Your task to perform on an android device: empty trash in the gmail app Image 0: 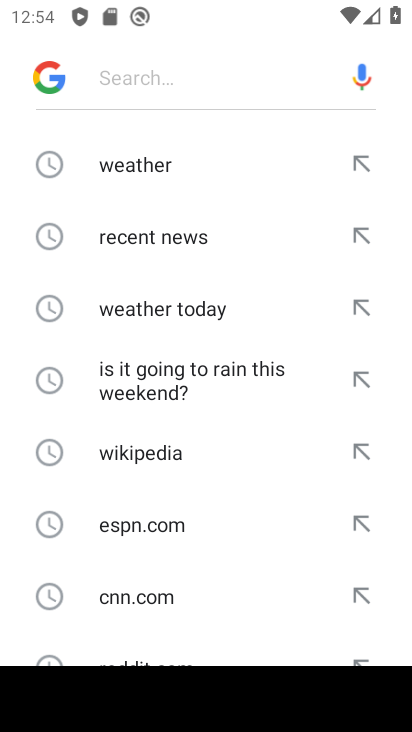
Step 0: press home button
Your task to perform on an android device: empty trash in the gmail app Image 1: 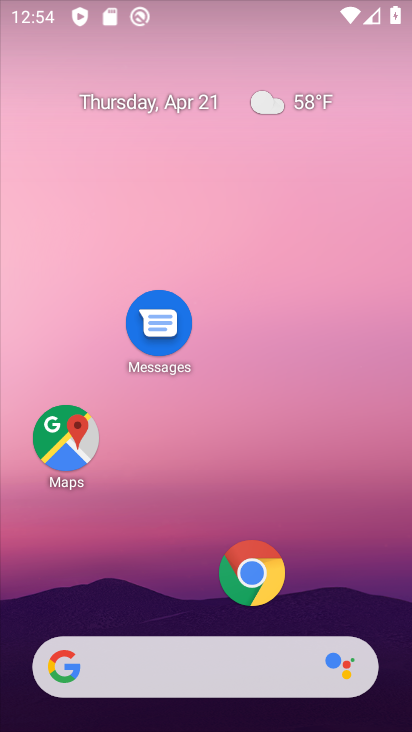
Step 1: drag from (161, 406) to (147, 82)
Your task to perform on an android device: empty trash in the gmail app Image 2: 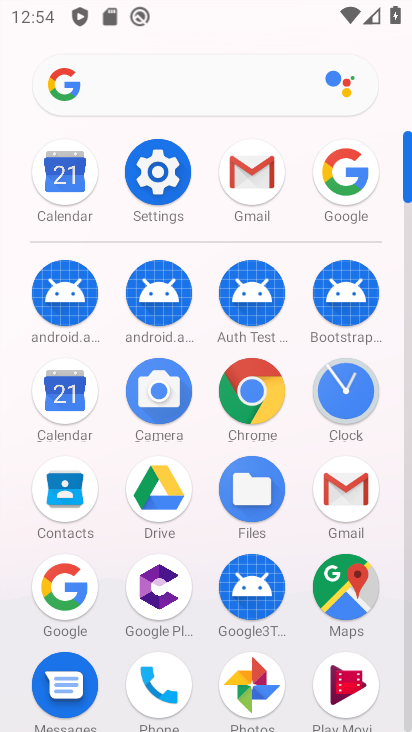
Step 2: click (263, 176)
Your task to perform on an android device: empty trash in the gmail app Image 3: 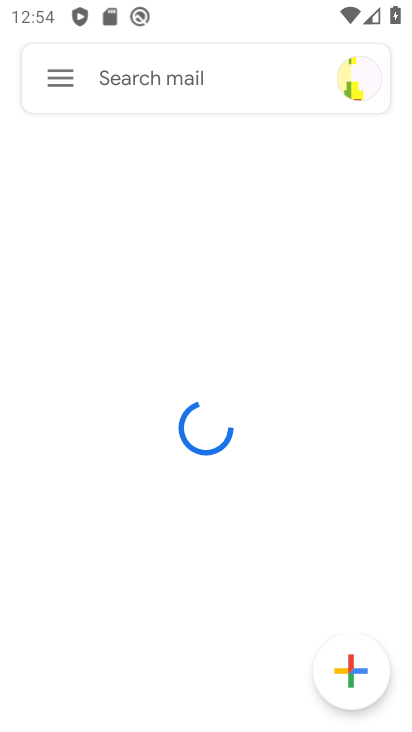
Step 3: click (36, 64)
Your task to perform on an android device: empty trash in the gmail app Image 4: 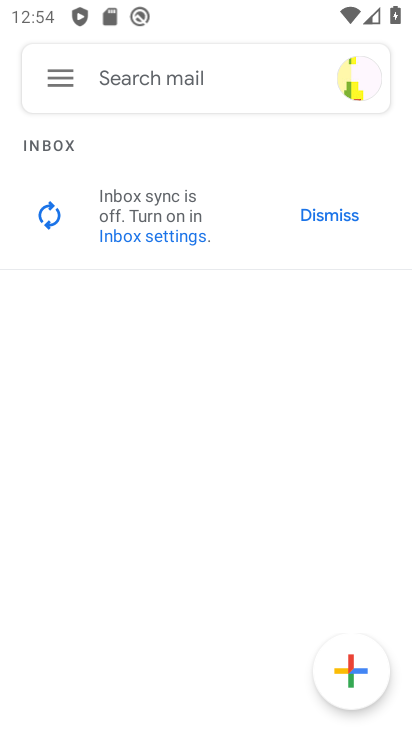
Step 4: click (67, 71)
Your task to perform on an android device: empty trash in the gmail app Image 5: 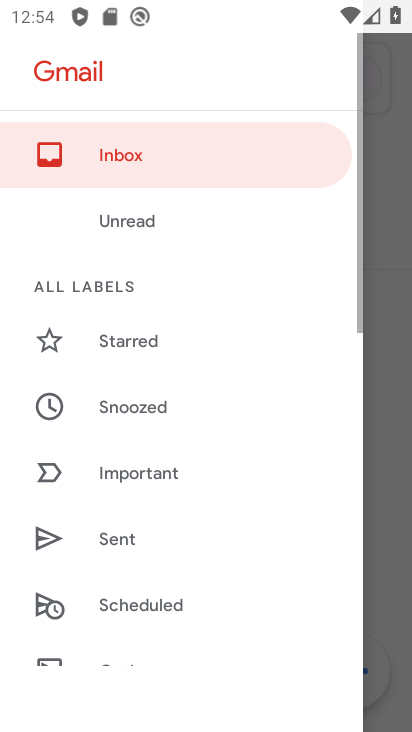
Step 5: drag from (176, 493) to (207, 159)
Your task to perform on an android device: empty trash in the gmail app Image 6: 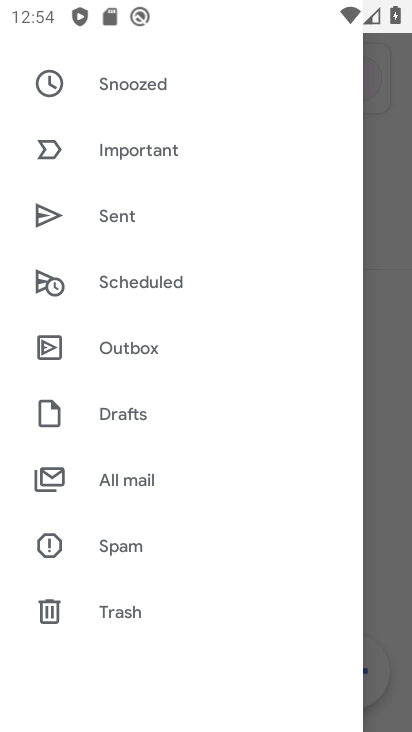
Step 6: click (120, 623)
Your task to perform on an android device: empty trash in the gmail app Image 7: 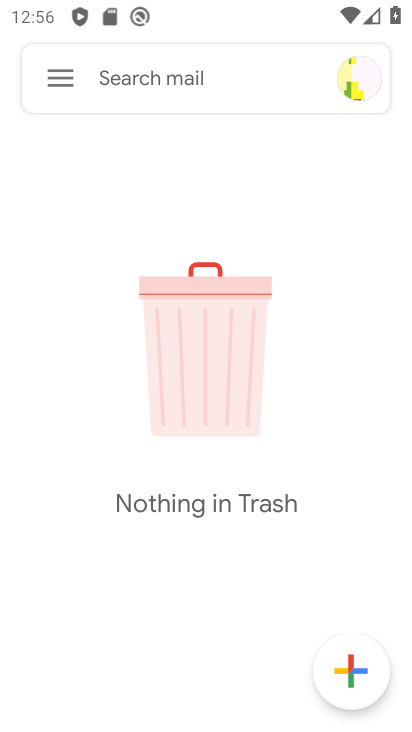
Step 7: task complete